Your task to perform on an android device: Open Android settings Image 0: 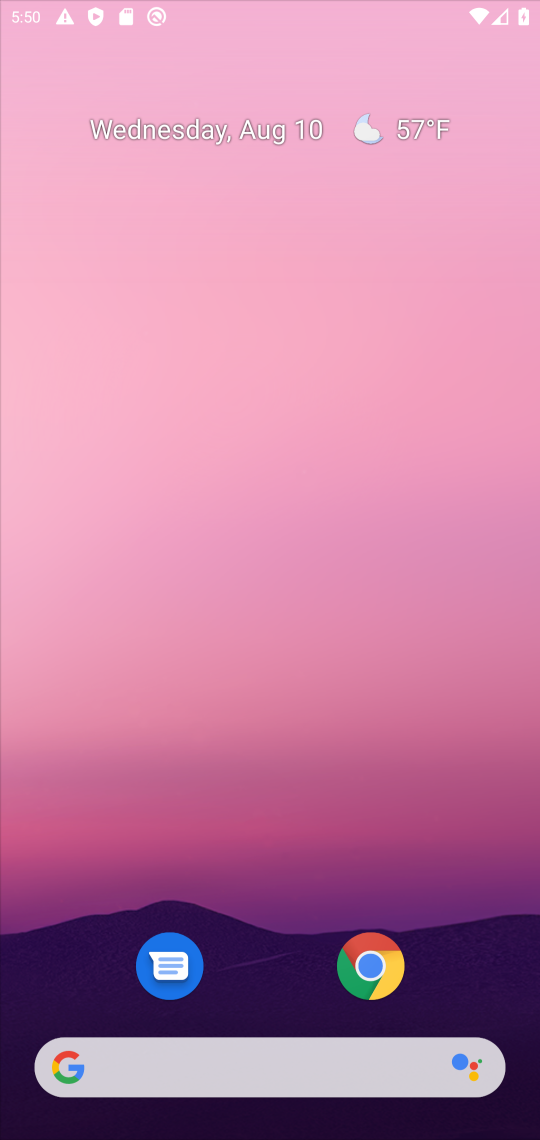
Step 0: press home button
Your task to perform on an android device: Open Android settings Image 1: 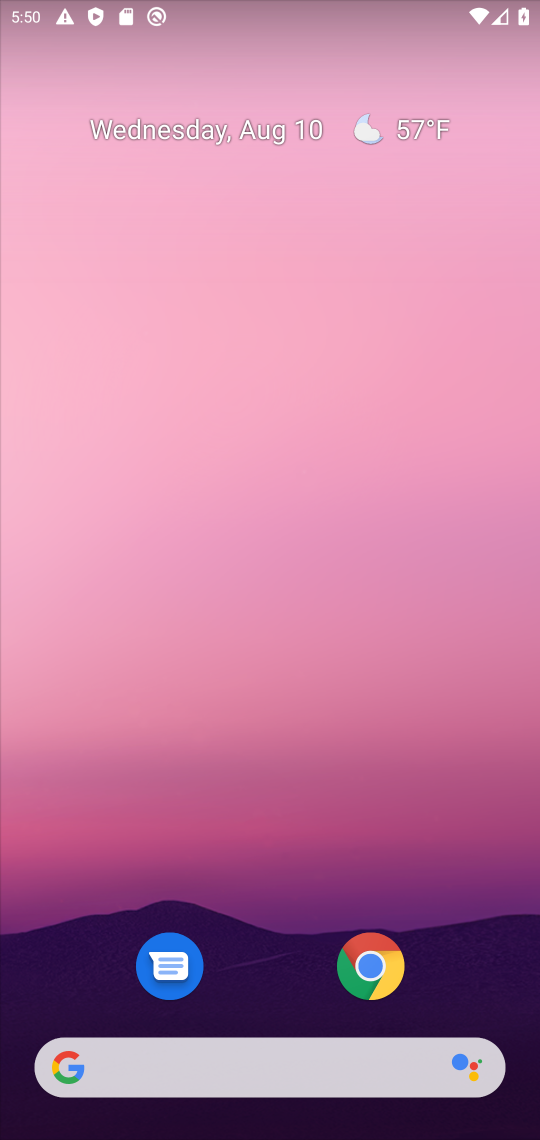
Step 1: drag from (262, 1012) to (227, 100)
Your task to perform on an android device: Open Android settings Image 2: 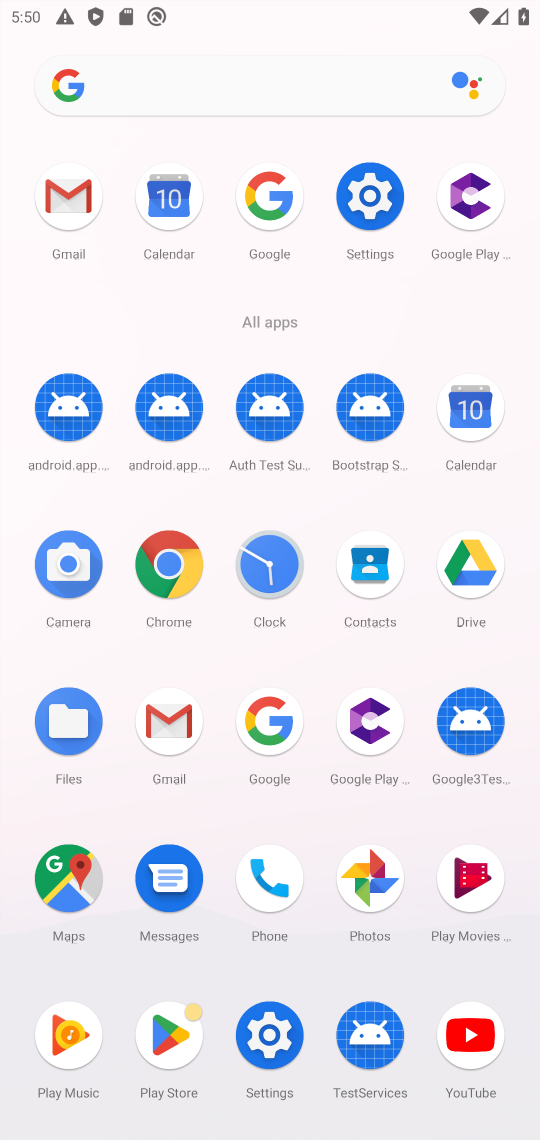
Step 2: click (382, 191)
Your task to perform on an android device: Open Android settings Image 3: 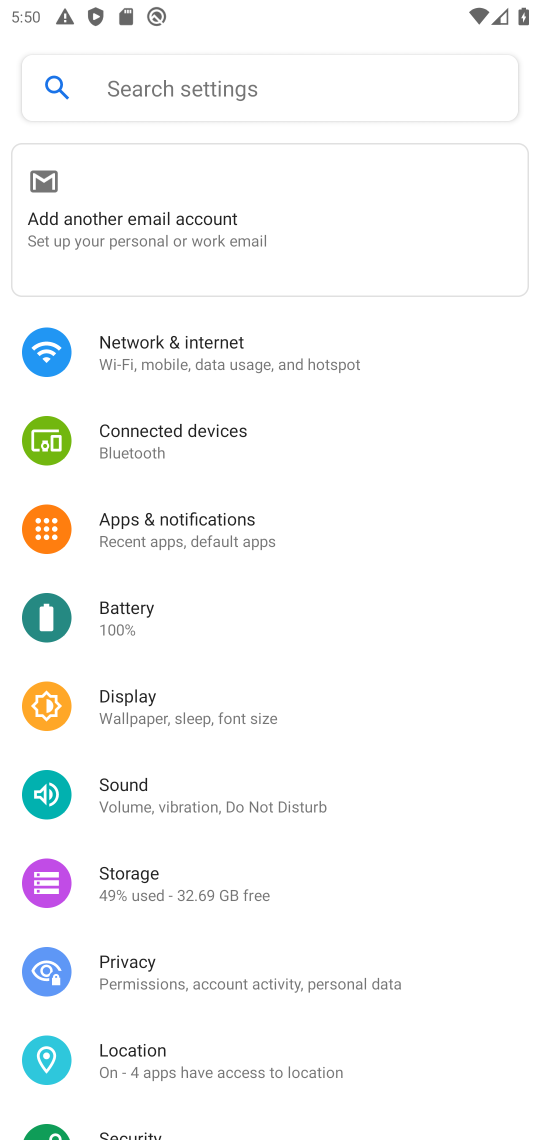
Step 3: task complete